Your task to perform on an android device: Play the latest video from the Washington Post Image 0: 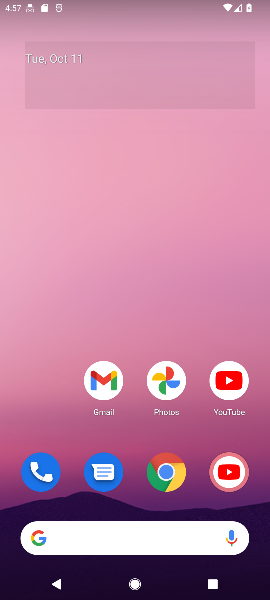
Step 0: click (223, 378)
Your task to perform on an android device: Play the latest video from the Washington Post Image 1: 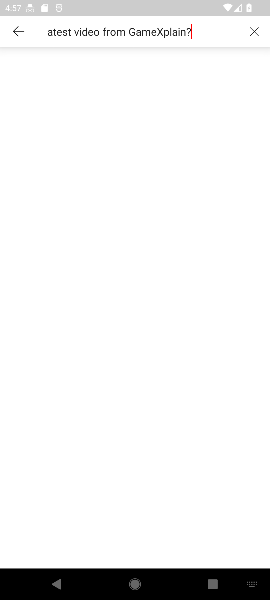
Step 1: click (258, 28)
Your task to perform on an android device: Play the latest video from the Washington Post Image 2: 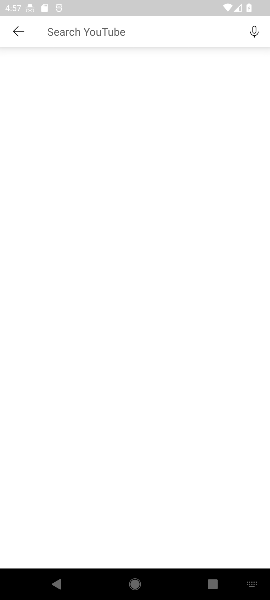
Step 2: type "latest video from the Washington Post"
Your task to perform on an android device: Play the latest video from the Washington Post Image 3: 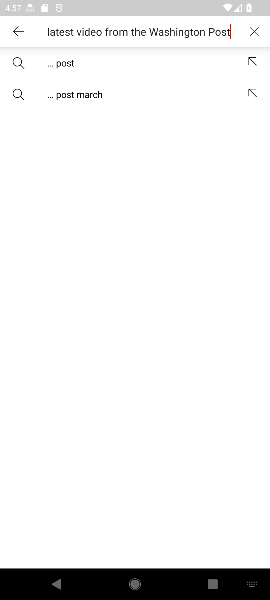
Step 3: click (97, 61)
Your task to perform on an android device: Play the latest video from the Washington Post Image 4: 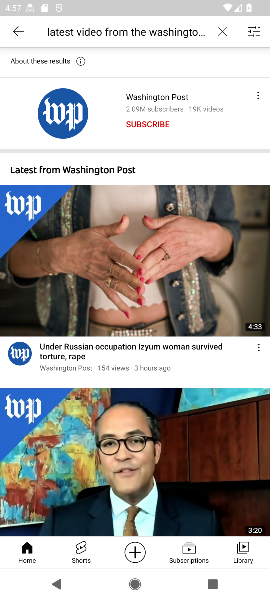
Step 4: click (164, 245)
Your task to perform on an android device: Play the latest video from the Washington Post Image 5: 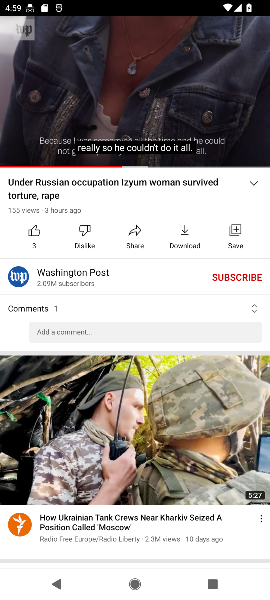
Step 5: task complete